Your task to perform on an android device: find snoozed emails in the gmail app Image 0: 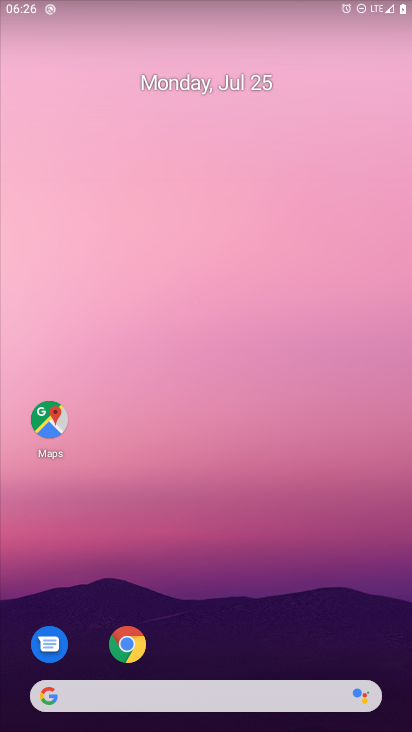
Step 0: press home button
Your task to perform on an android device: find snoozed emails in the gmail app Image 1: 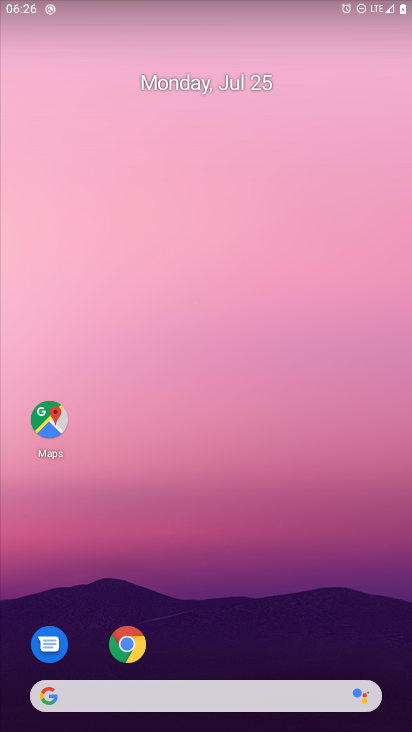
Step 1: drag from (201, 643) to (182, 132)
Your task to perform on an android device: find snoozed emails in the gmail app Image 2: 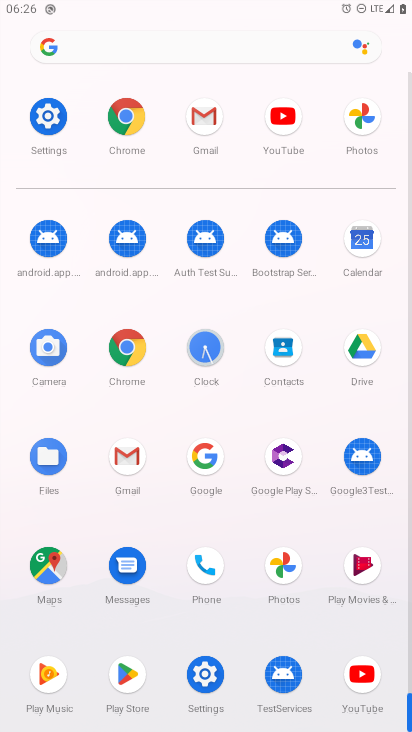
Step 2: click (198, 128)
Your task to perform on an android device: find snoozed emails in the gmail app Image 3: 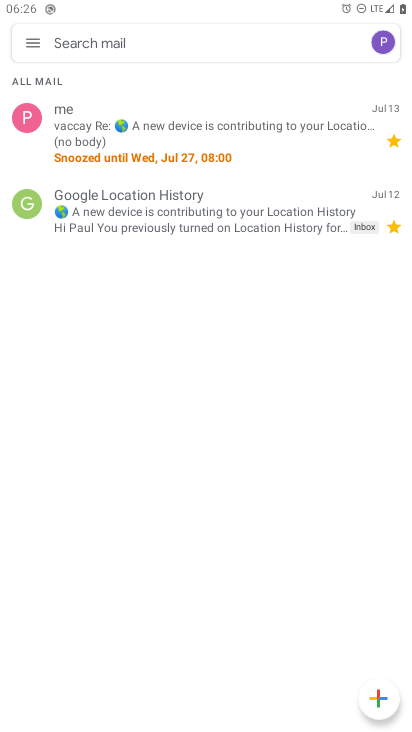
Step 3: click (36, 36)
Your task to perform on an android device: find snoozed emails in the gmail app Image 4: 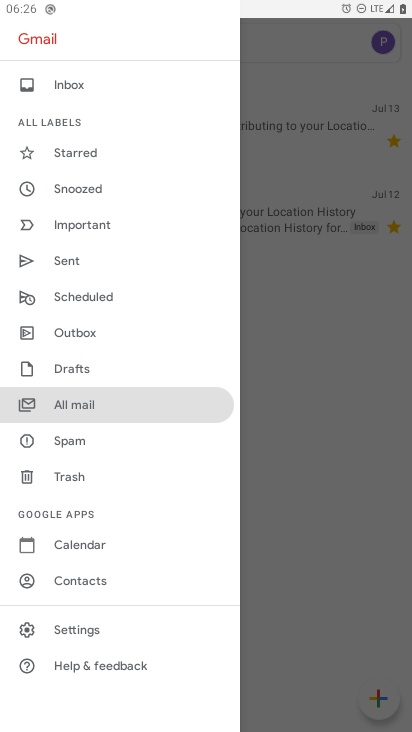
Step 4: click (86, 186)
Your task to perform on an android device: find snoozed emails in the gmail app Image 5: 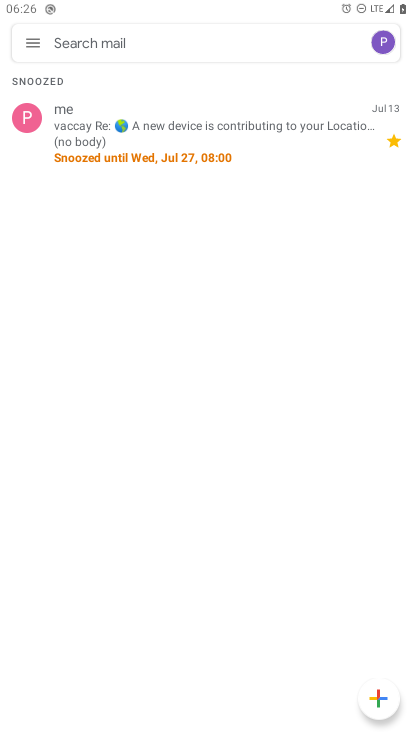
Step 5: task complete